Your task to perform on an android device: What's on my calendar today? Image 0: 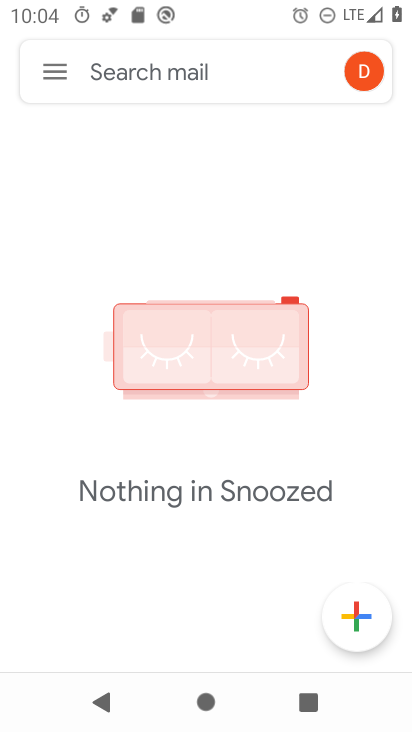
Step 0: press home button
Your task to perform on an android device: What's on my calendar today? Image 1: 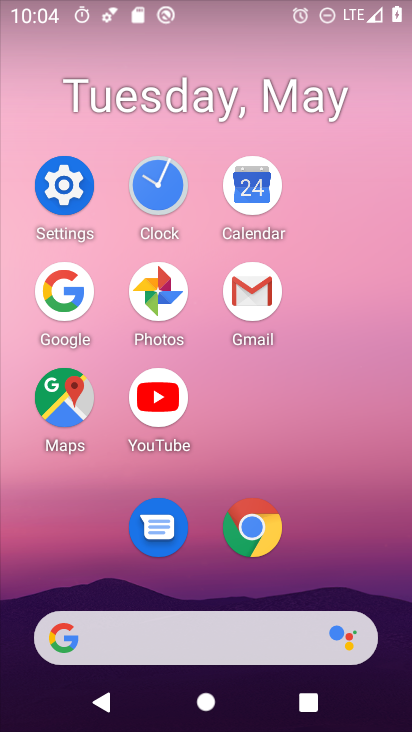
Step 1: click (250, 214)
Your task to perform on an android device: What's on my calendar today? Image 2: 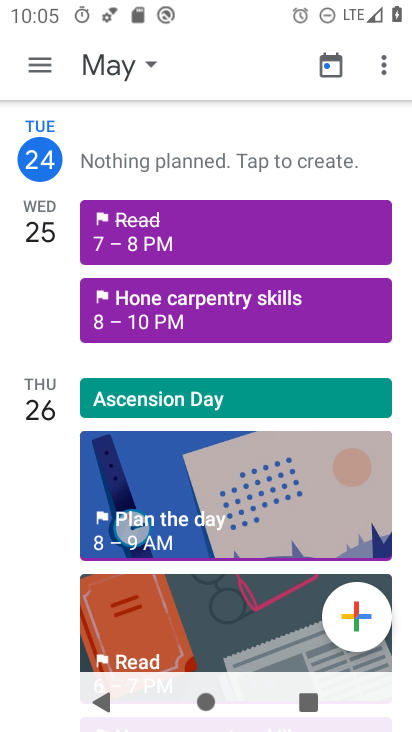
Step 2: click (37, 229)
Your task to perform on an android device: What's on my calendar today? Image 3: 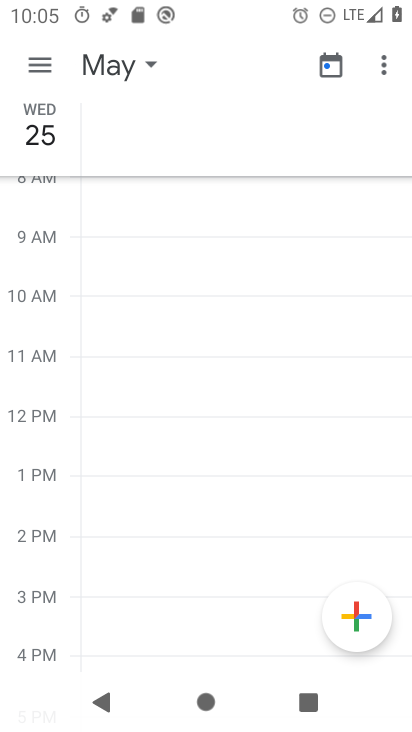
Step 3: click (23, 134)
Your task to perform on an android device: What's on my calendar today? Image 4: 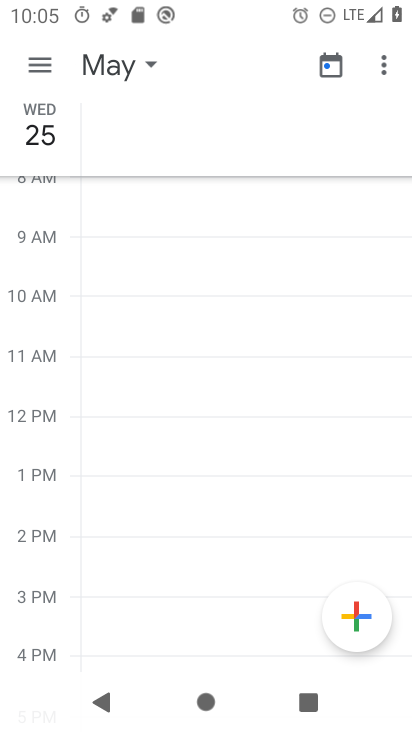
Step 4: click (347, 140)
Your task to perform on an android device: What's on my calendar today? Image 5: 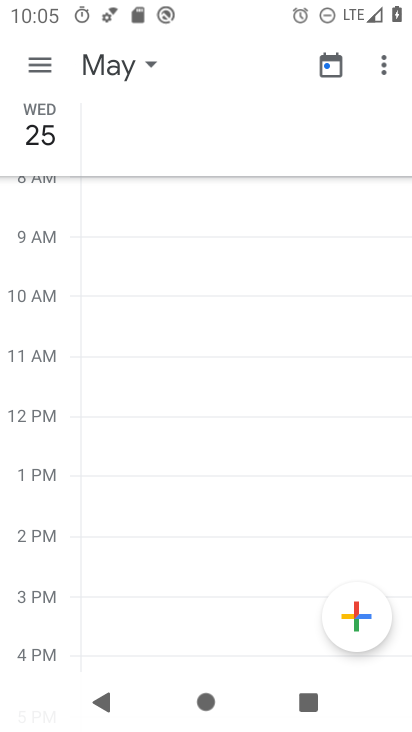
Step 5: task complete